Your task to perform on an android device: star an email in the gmail app Image 0: 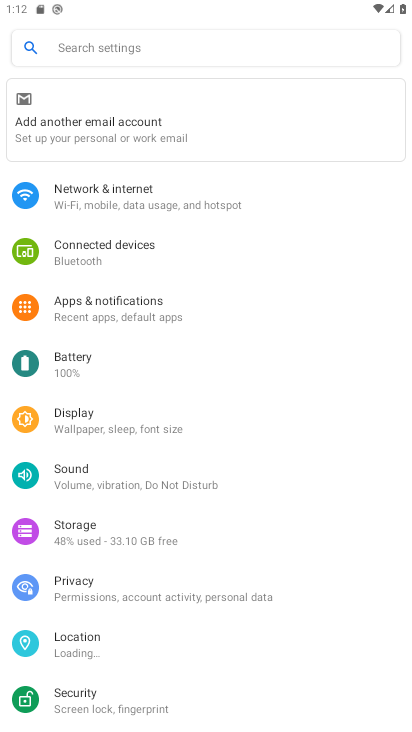
Step 0: press home button
Your task to perform on an android device: star an email in the gmail app Image 1: 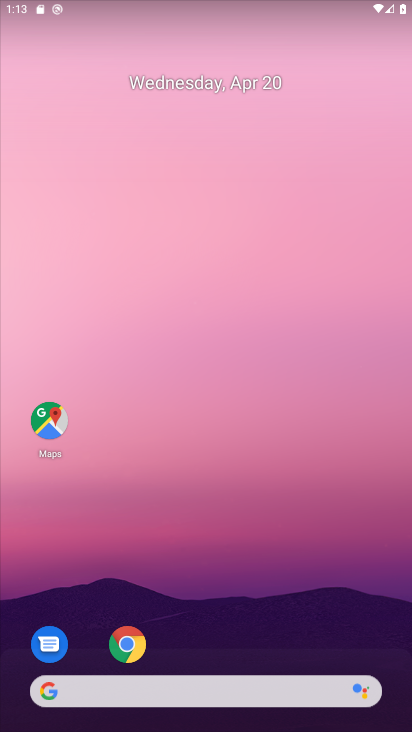
Step 1: drag from (156, 690) to (314, 112)
Your task to perform on an android device: star an email in the gmail app Image 2: 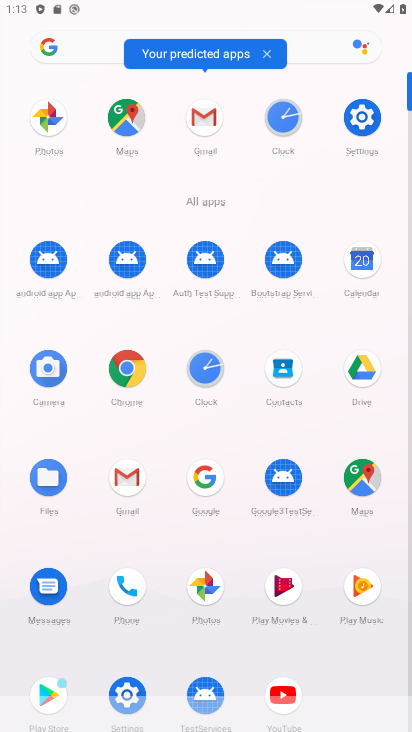
Step 2: click (204, 125)
Your task to perform on an android device: star an email in the gmail app Image 3: 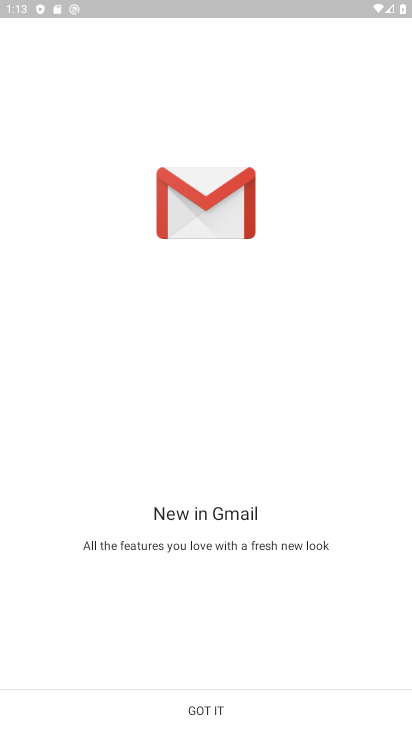
Step 3: click (208, 716)
Your task to perform on an android device: star an email in the gmail app Image 4: 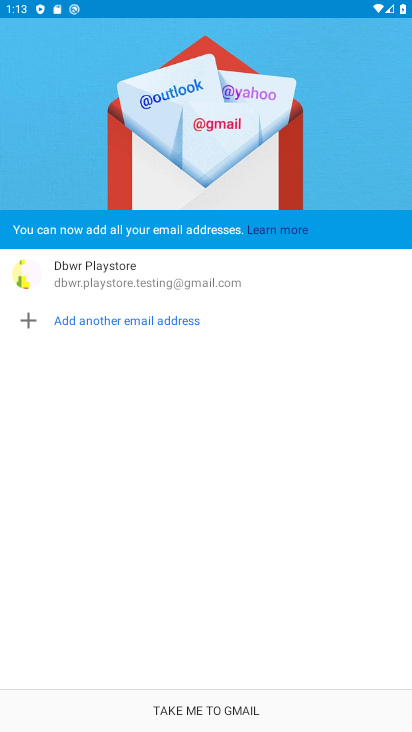
Step 4: click (209, 711)
Your task to perform on an android device: star an email in the gmail app Image 5: 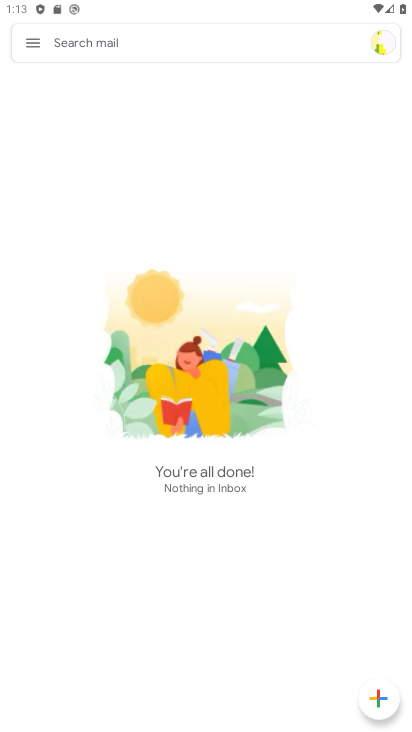
Step 5: task complete